Your task to perform on an android device: What's the weather going to be tomorrow? Image 0: 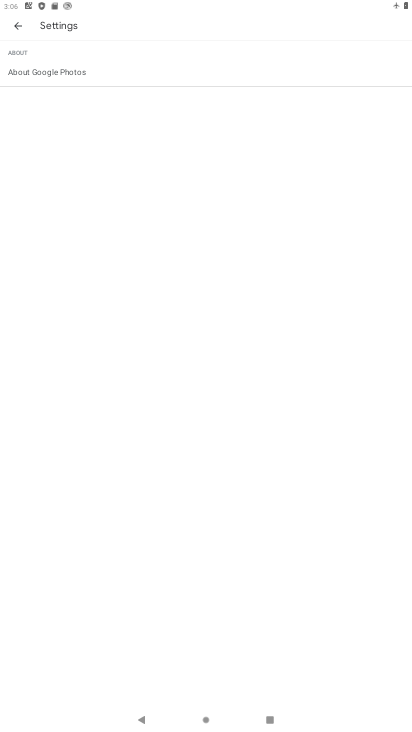
Step 0: press home button
Your task to perform on an android device: What's the weather going to be tomorrow? Image 1: 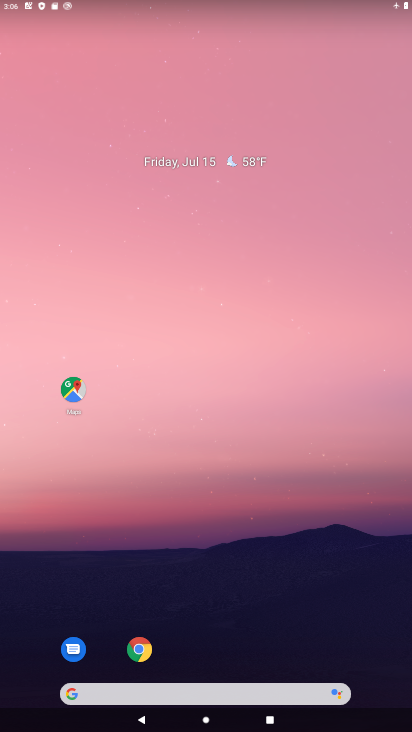
Step 1: drag from (242, 723) to (256, 147)
Your task to perform on an android device: What's the weather going to be tomorrow? Image 2: 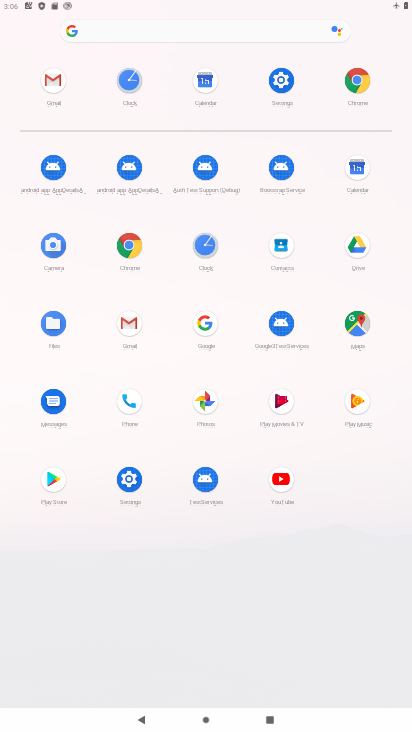
Step 2: click (211, 328)
Your task to perform on an android device: What's the weather going to be tomorrow? Image 3: 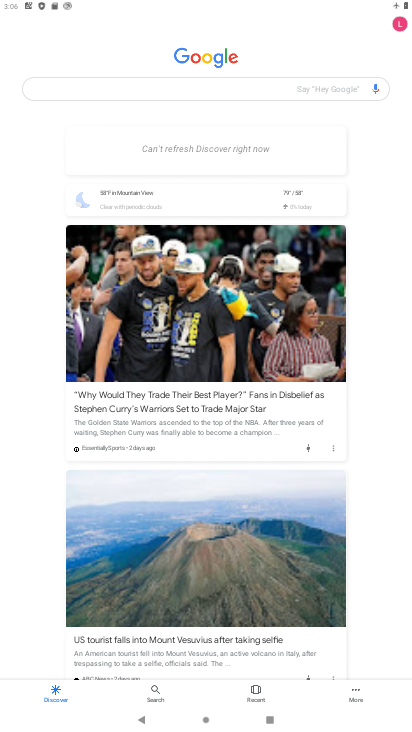
Step 3: click (154, 191)
Your task to perform on an android device: What's the weather going to be tomorrow? Image 4: 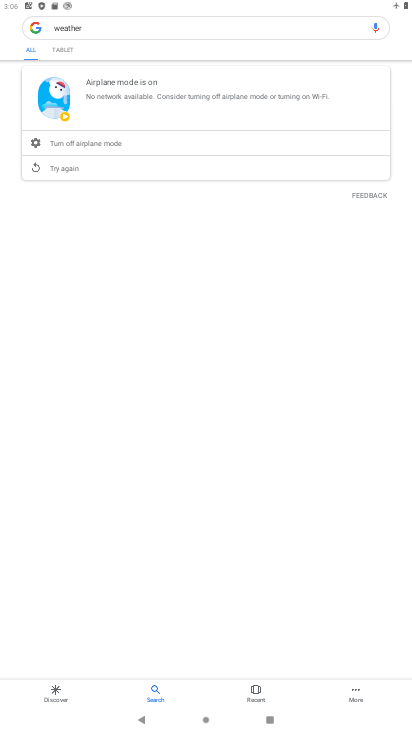
Step 4: task complete